Your task to perform on an android device: Go to Google Image 0: 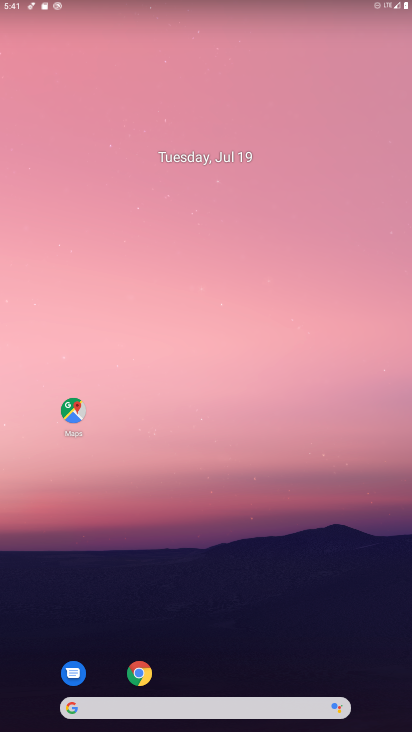
Step 0: drag from (214, 676) to (230, 3)
Your task to perform on an android device: Go to Google Image 1: 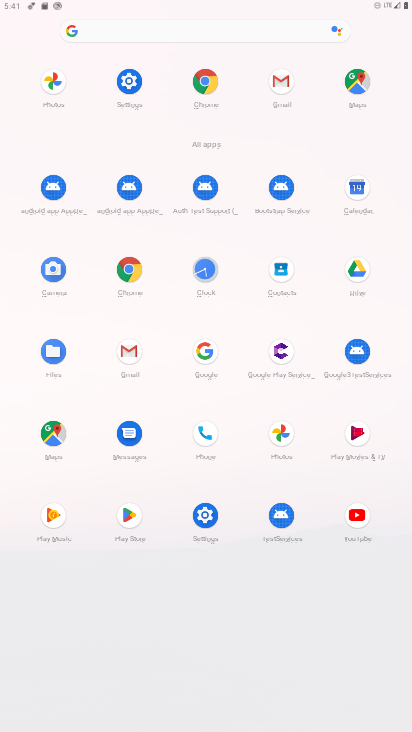
Step 1: click (201, 347)
Your task to perform on an android device: Go to Google Image 2: 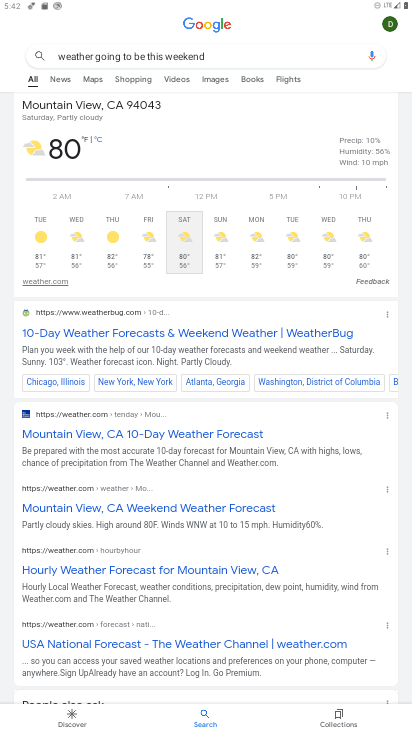
Step 2: task complete